Your task to perform on an android device: Open wifi settings Image 0: 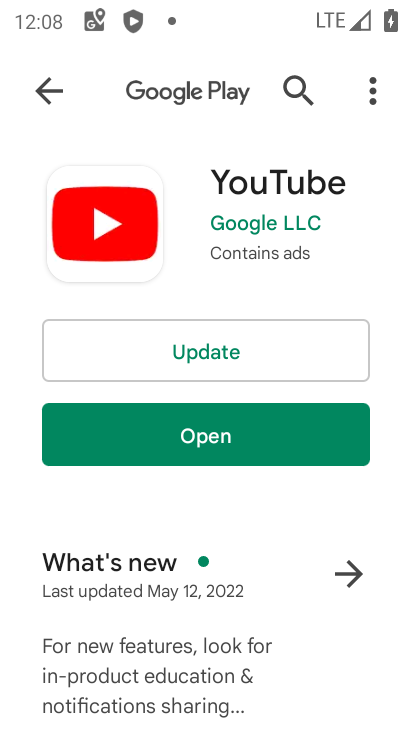
Step 0: press home button
Your task to perform on an android device: Open wifi settings Image 1: 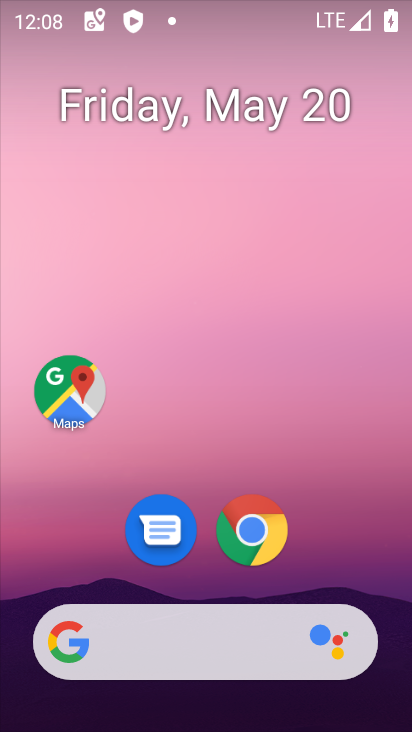
Step 1: drag from (222, 640) to (249, 133)
Your task to perform on an android device: Open wifi settings Image 2: 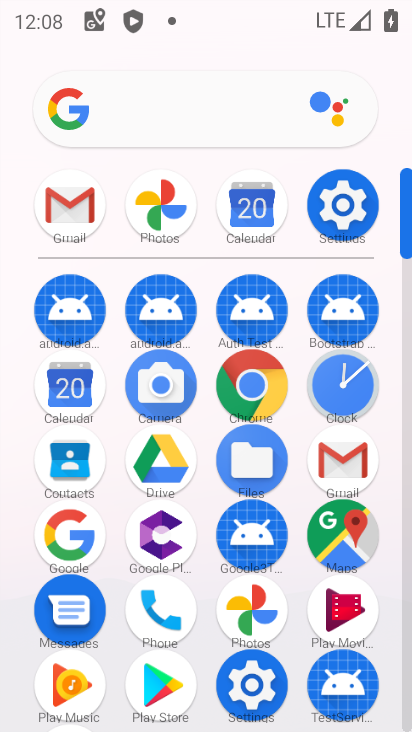
Step 2: click (351, 214)
Your task to perform on an android device: Open wifi settings Image 3: 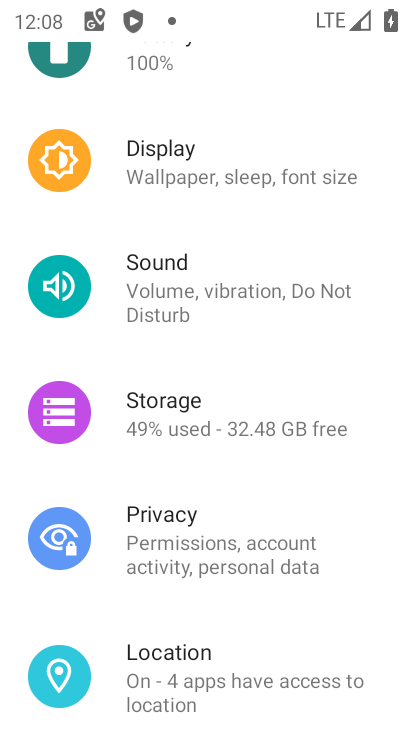
Step 3: drag from (242, 164) to (218, 562)
Your task to perform on an android device: Open wifi settings Image 4: 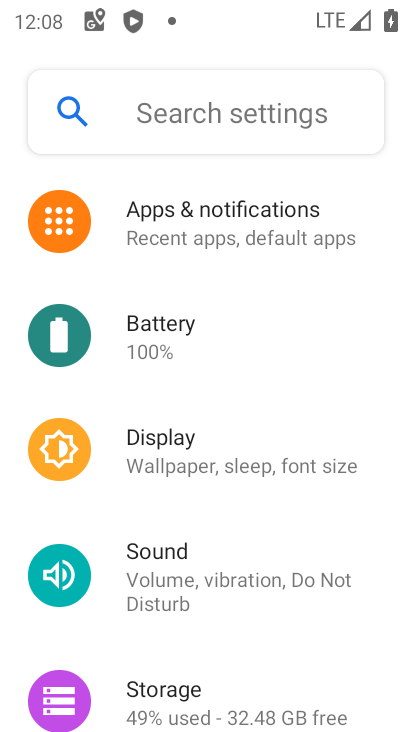
Step 4: drag from (289, 224) to (230, 731)
Your task to perform on an android device: Open wifi settings Image 5: 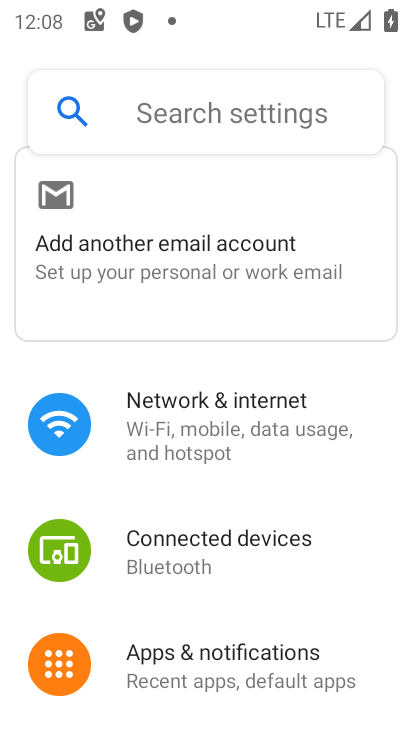
Step 5: click (270, 412)
Your task to perform on an android device: Open wifi settings Image 6: 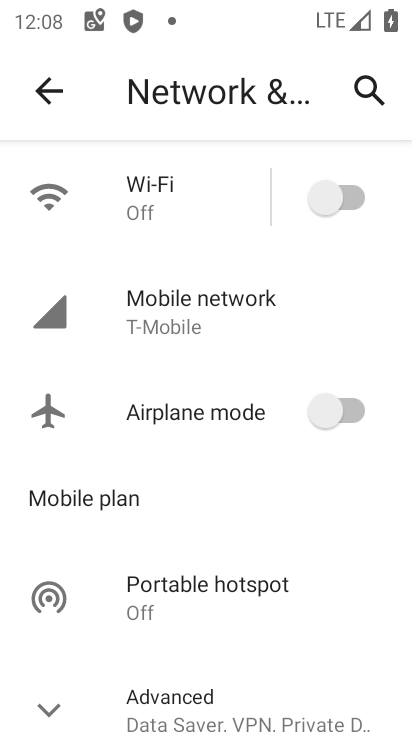
Step 6: click (148, 189)
Your task to perform on an android device: Open wifi settings Image 7: 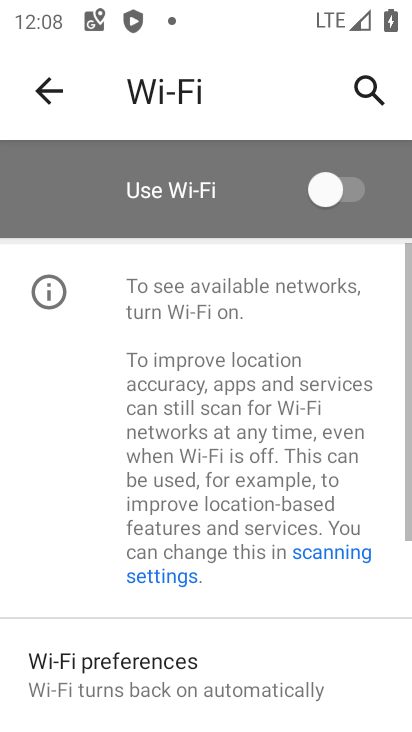
Step 7: task complete